Your task to perform on an android device: Open calendar and show me the fourth week of next month Image 0: 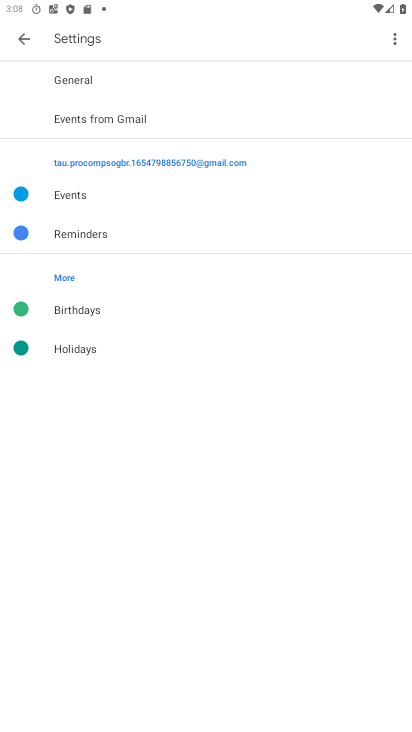
Step 0: press back button
Your task to perform on an android device: Open calendar and show me the fourth week of next month Image 1: 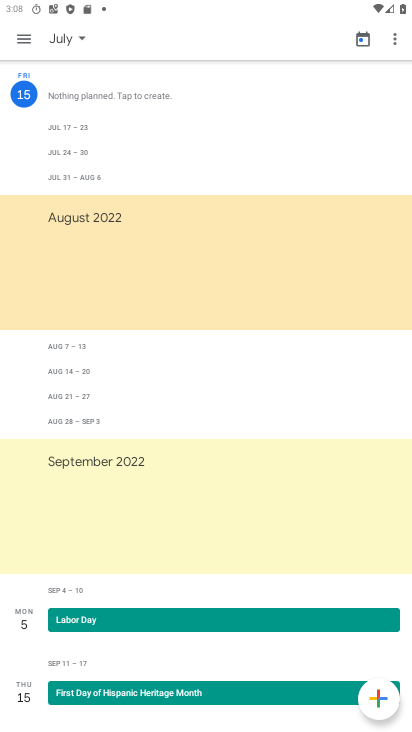
Step 1: press back button
Your task to perform on an android device: Open calendar and show me the fourth week of next month Image 2: 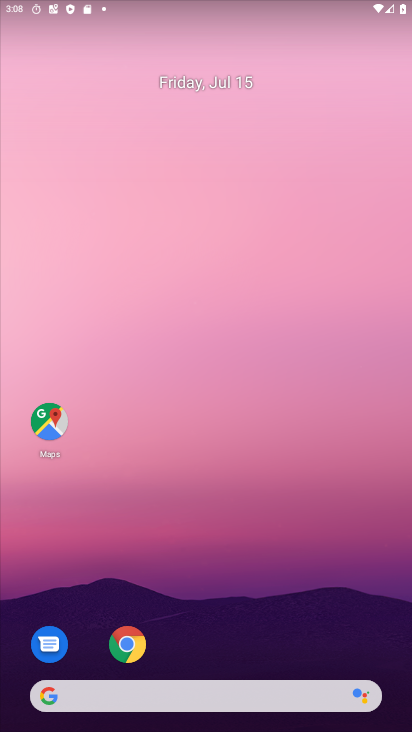
Step 2: drag from (185, 652) to (259, 88)
Your task to perform on an android device: Open calendar and show me the fourth week of next month Image 3: 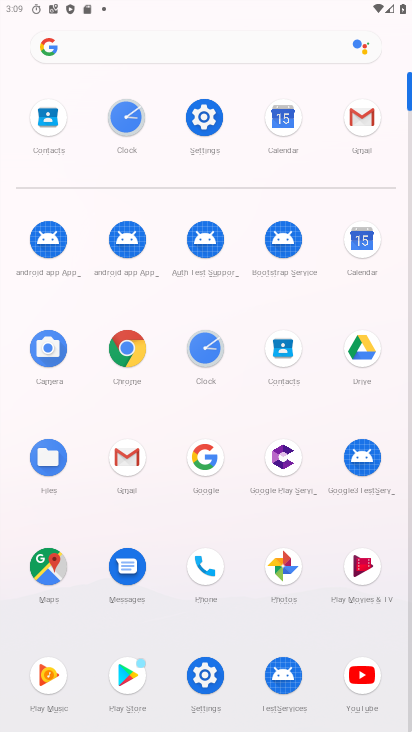
Step 3: click (372, 250)
Your task to perform on an android device: Open calendar and show me the fourth week of next month Image 4: 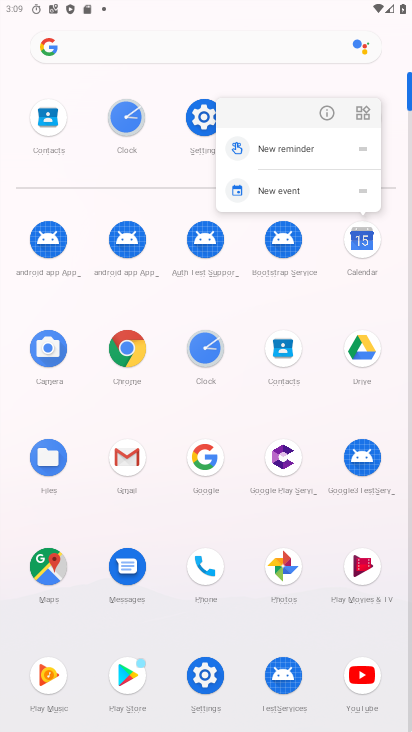
Step 4: click (372, 237)
Your task to perform on an android device: Open calendar and show me the fourth week of next month Image 5: 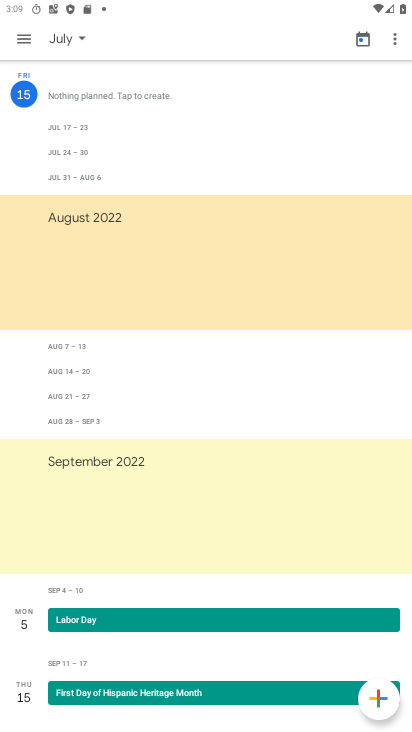
Step 5: click (78, 34)
Your task to perform on an android device: Open calendar and show me the fourth week of next month Image 6: 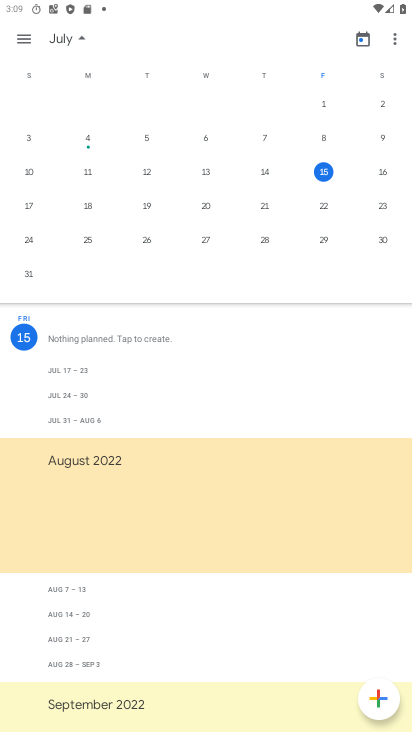
Step 6: drag from (386, 186) to (14, 197)
Your task to perform on an android device: Open calendar and show me the fourth week of next month Image 7: 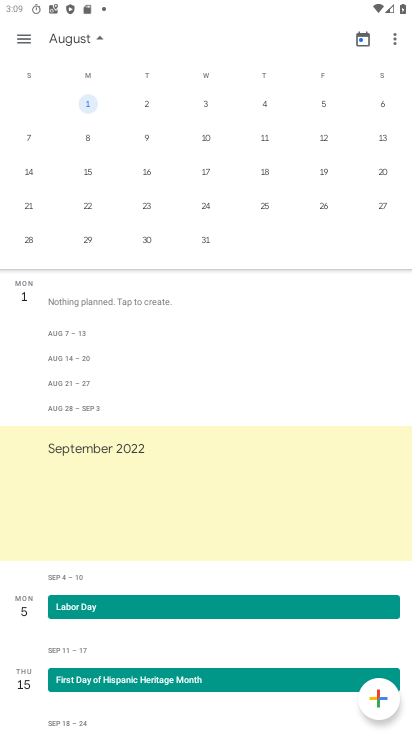
Step 7: click (95, 207)
Your task to perform on an android device: Open calendar and show me the fourth week of next month Image 8: 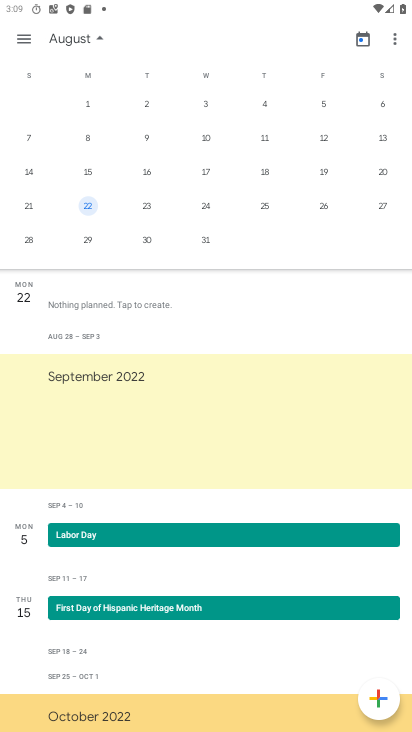
Step 8: task complete